Your task to perform on an android device: delete browsing data in the chrome app Image 0: 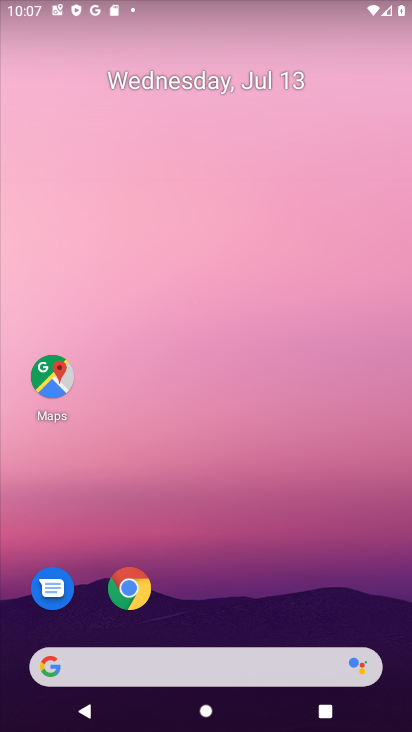
Step 0: click (129, 590)
Your task to perform on an android device: delete browsing data in the chrome app Image 1: 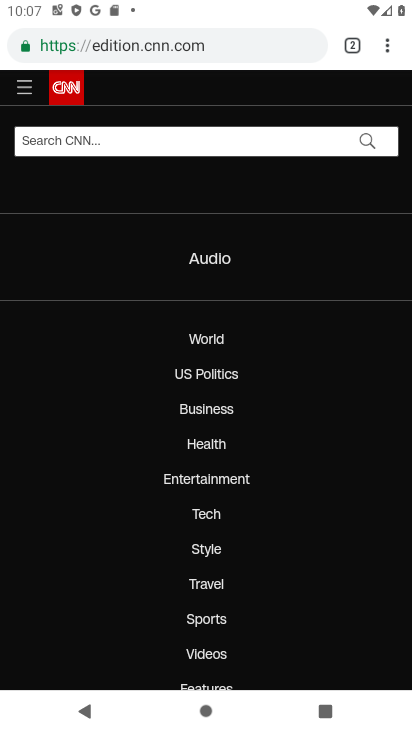
Step 1: click (382, 46)
Your task to perform on an android device: delete browsing data in the chrome app Image 2: 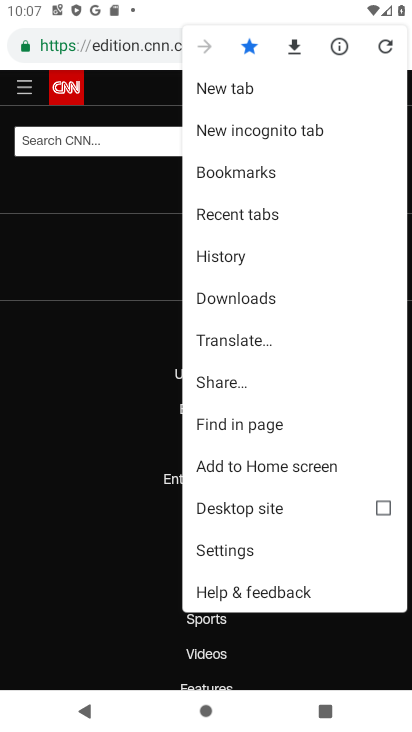
Step 2: click (242, 550)
Your task to perform on an android device: delete browsing data in the chrome app Image 3: 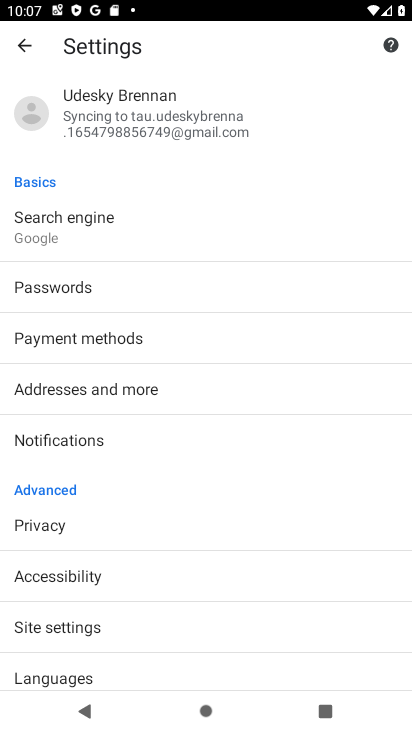
Step 3: drag from (164, 583) to (172, 335)
Your task to perform on an android device: delete browsing data in the chrome app Image 4: 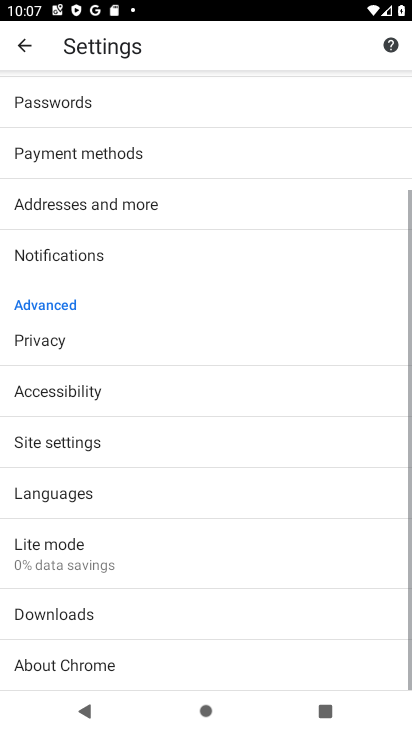
Step 4: drag from (119, 614) to (104, 257)
Your task to perform on an android device: delete browsing data in the chrome app Image 5: 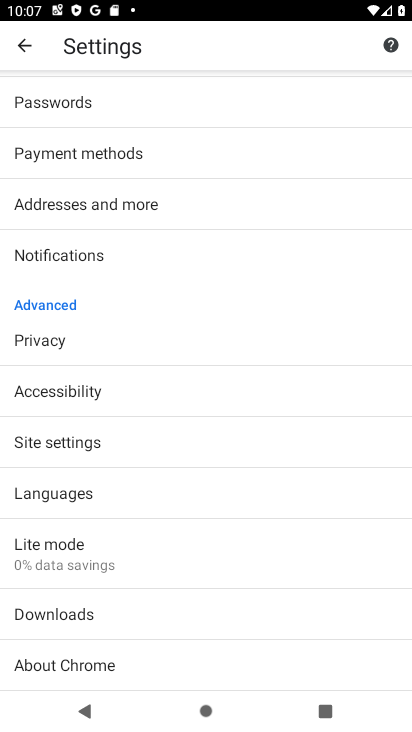
Step 5: click (48, 343)
Your task to perform on an android device: delete browsing data in the chrome app Image 6: 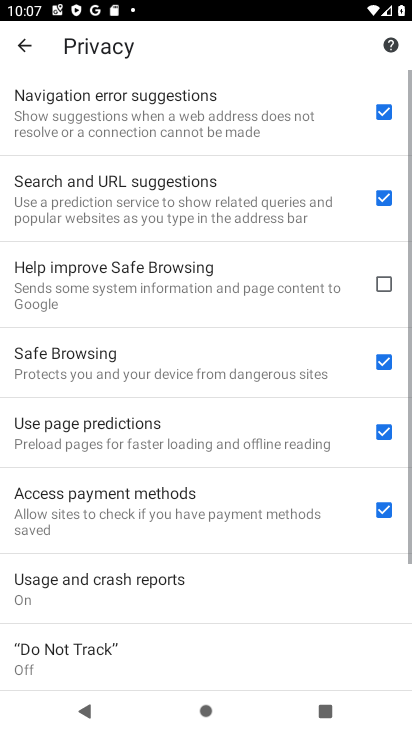
Step 6: drag from (221, 606) to (183, 75)
Your task to perform on an android device: delete browsing data in the chrome app Image 7: 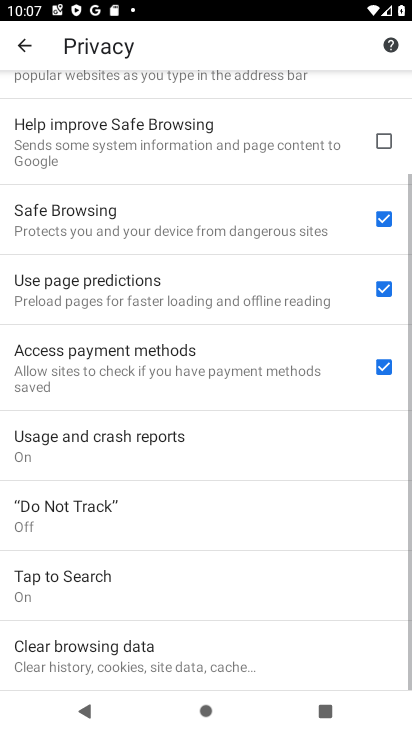
Step 7: click (156, 650)
Your task to perform on an android device: delete browsing data in the chrome app Image 8: 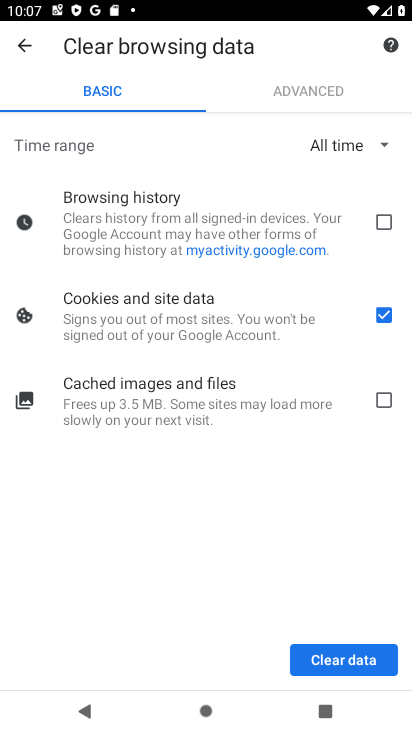
Step 8: click (379, 221)
Your task to perform on an android device: delete browsing data in the chrome app Image 9: 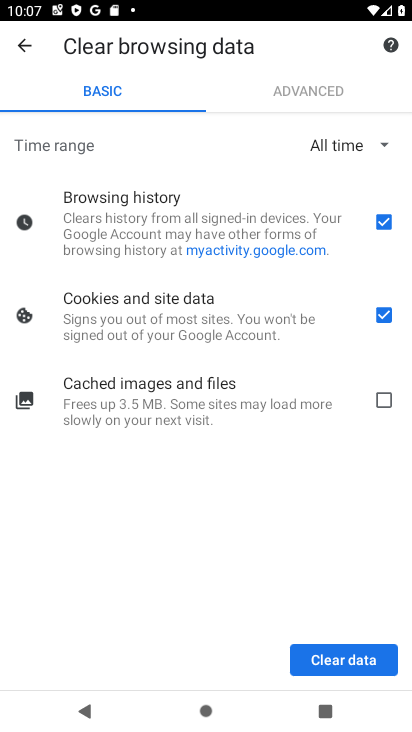
Step 9: click (377, 397)
Your task to perform on an android device: delete browsing data in the chrome app Image 10: 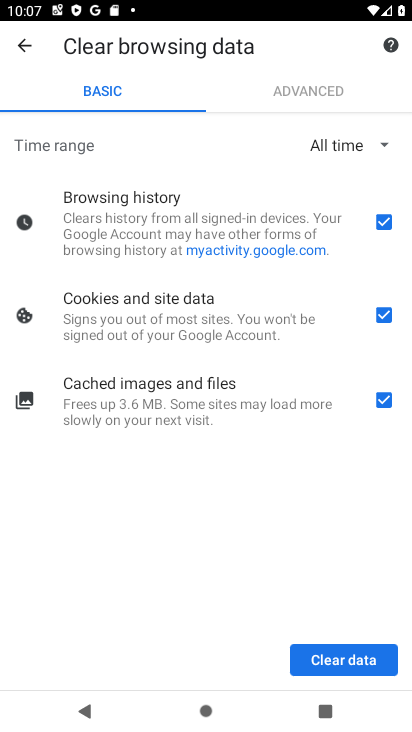
Step 10: click (328, 665)
Your task to perform on an android device: delete browsing data in the chrome app Image 11: 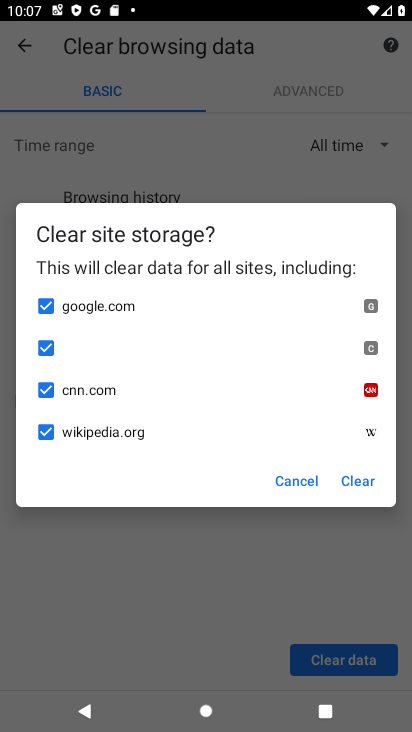
Step 11: click (357, 483)
Your task to perform on an android device: delete browsing data in the chrome app Image 12: 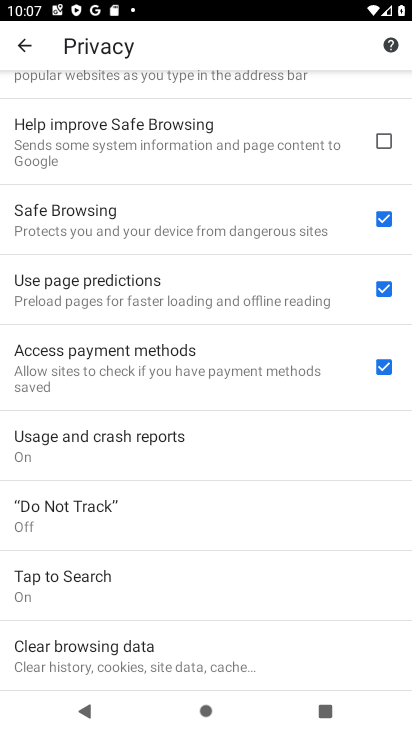
Step 12: task complete